Your task to perform on an android device: Show me popular games on the Play Store Image 0: 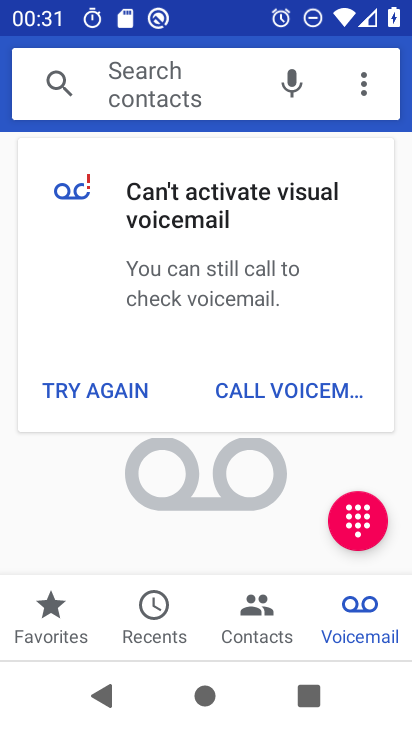
Step 0: press home button
Your task to perform on an android device: Show me popular games on the Play Store Image 1: 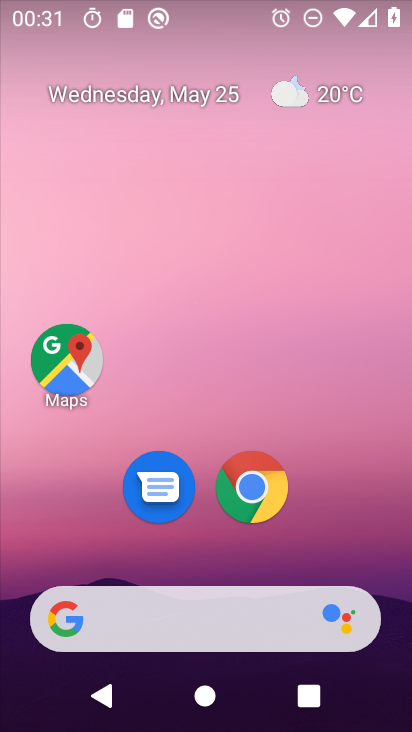
Step 1: drag from (364, 584) to (410, 6)
Your task to perform on an android device: Show me popular games on the Play Store Image 2: 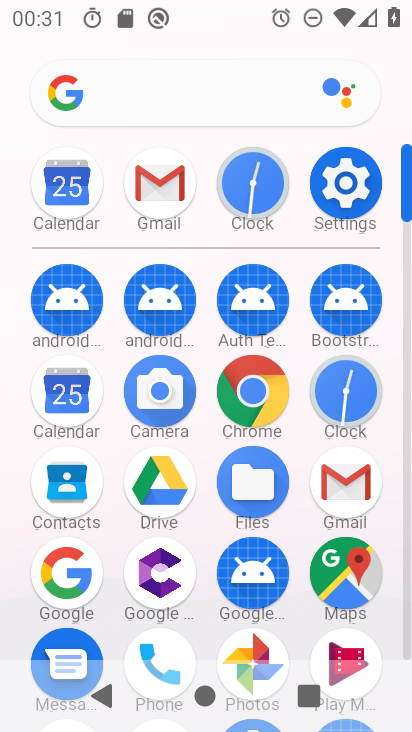
Step 2: click (409, 525)
Your task to perform on an android device: Show me popular games on the Play Store Image 3: 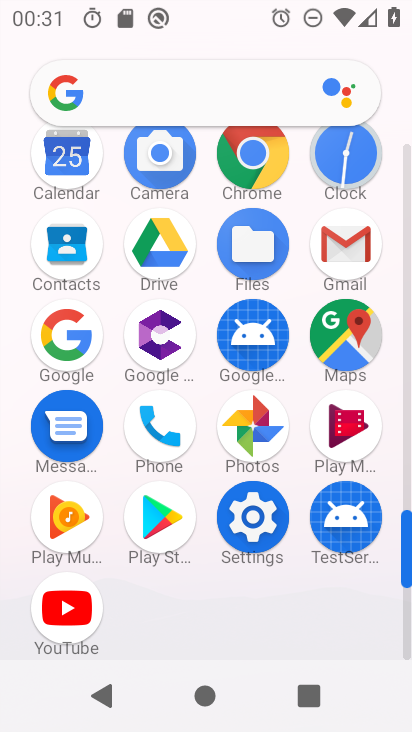
Step 3: click (165, 528)
Your task to perform on an android device: Show me popular games on the Play Store Image 4: 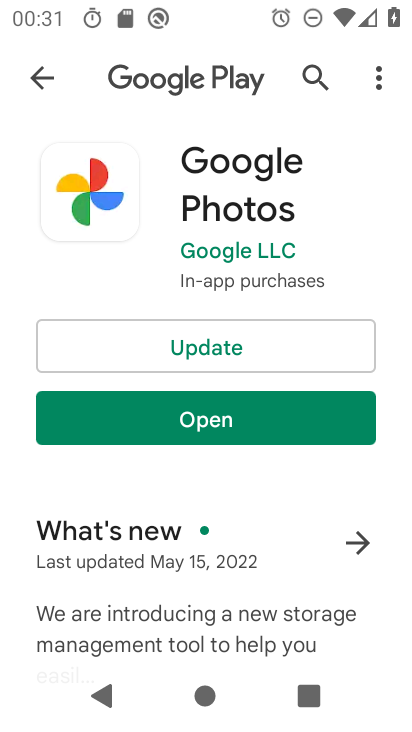
Step 4: click (38, 77)
Your task to perform on an android device: Show me popular games on the Play Store Image 5: 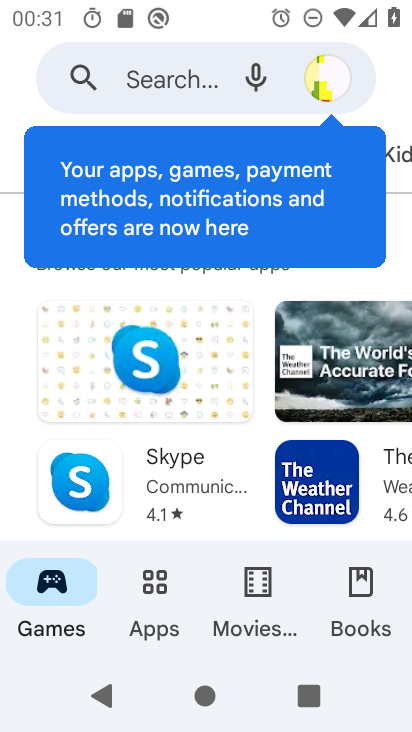
Step 5: drag from (195, 481) to (147, 0)
Your task to perform on an android device: Show me popular games on the Play Store Image 6: 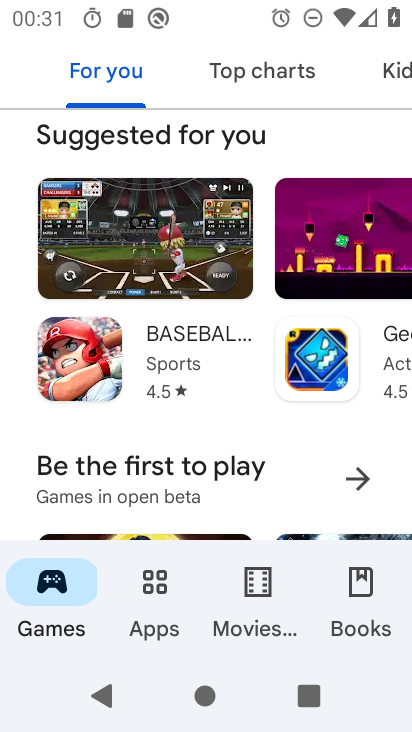
Step 6: drag from (199, 484) to (215, 225)
Your task to perform on an android device: Show me popular games on the Play Store Image 7: 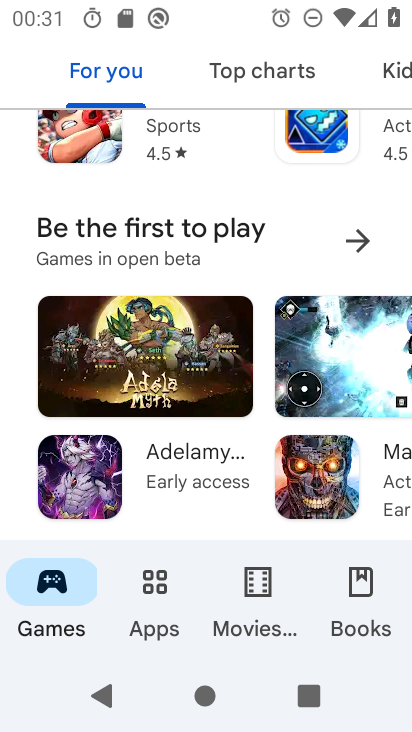
Step 7: drag from (197, 475) to (199, 153)
Your task to perform on an android device: Show me popular games on the Play Store Image 8: 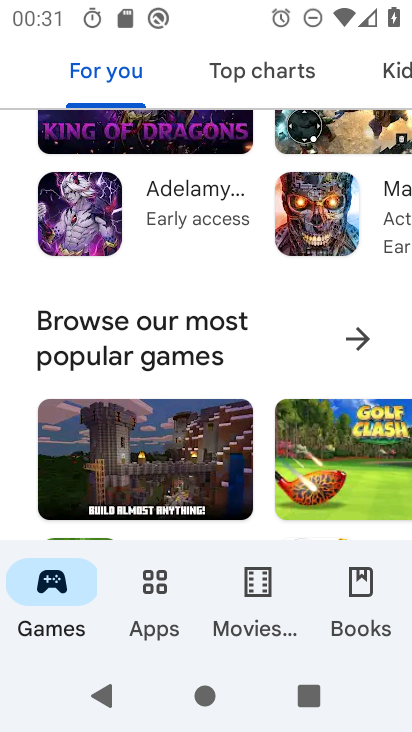
Step 8: click (184, 351)
Your task to perform on an android device: Show me popular games on the Play Store Image 9: 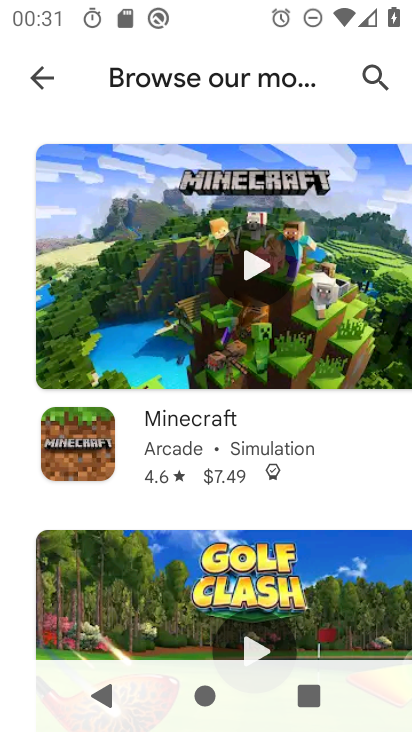
Step 9: task complete